Your task to perform on an android device: Open Maps and search for coffee Image 0: 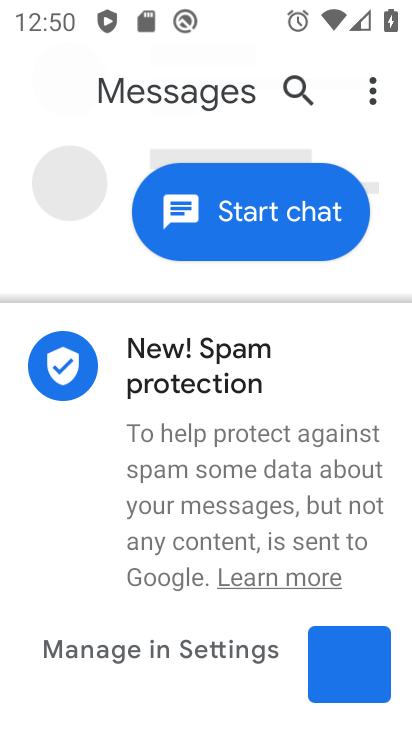
Step 0: press home button
Your task to perform on an android device: Open Maps and search for coffee Image 1: 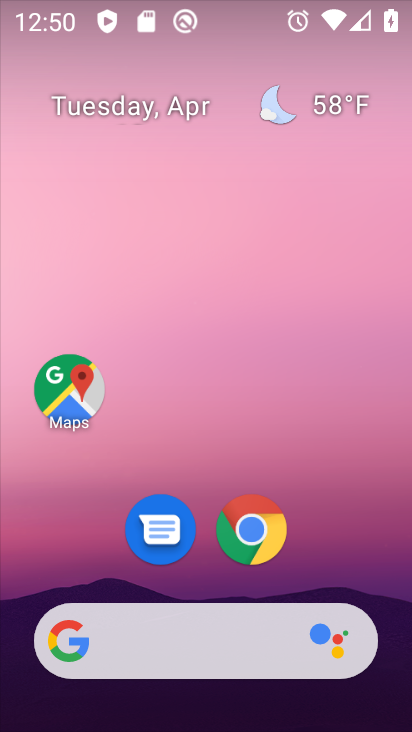
Step 1: drag from (389, 616) to (270, 118)
Your task to perform on an android device: Open Maps and search for coffee Image 2: 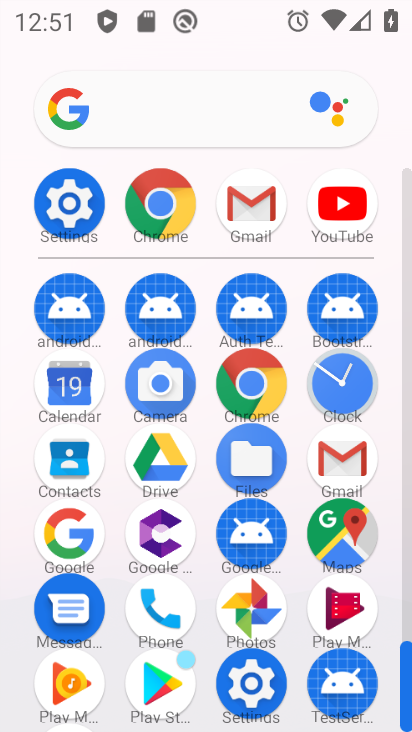
Step 2: click (348, 545)
Your task to perform on an android device: Open Maps and search for coffee Image 3: 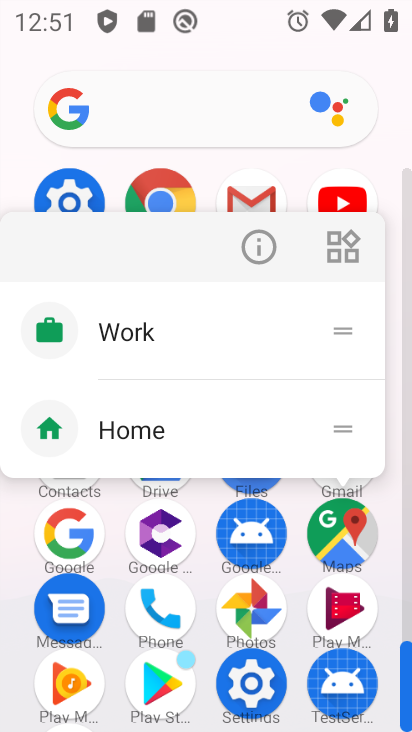
Step 3: click (348, 545)
Your task to perform on an android device: Open Maps and search for coffee Image 4: 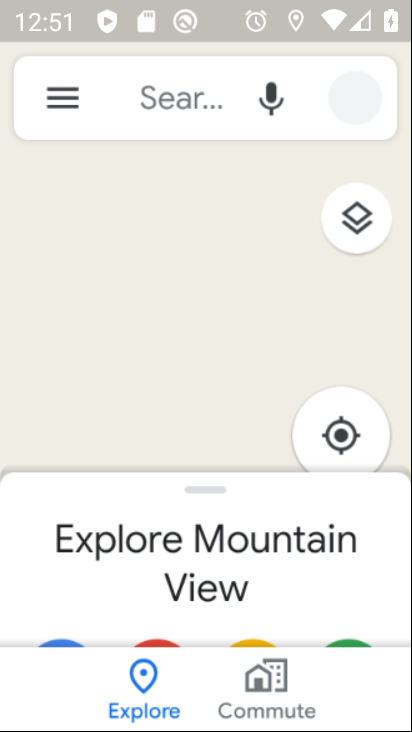
Step 4: click (160, 97)
Your task to perform on an android device: Open Maps and search for coffee Image 5: 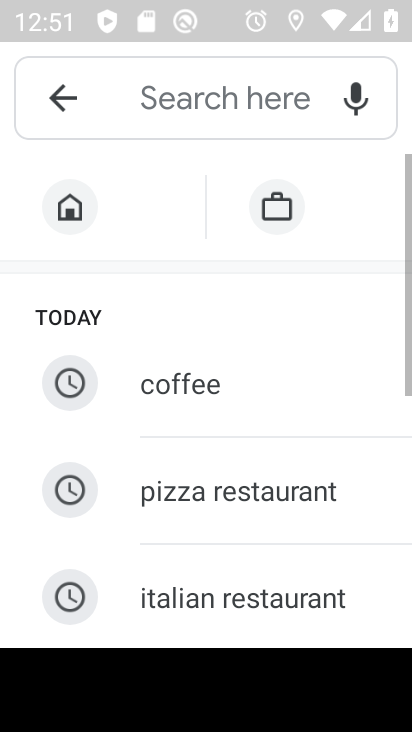
Step 5: click (212, 381)
Your task to perform on an android device: Open Maps and search for coffee Image 6: 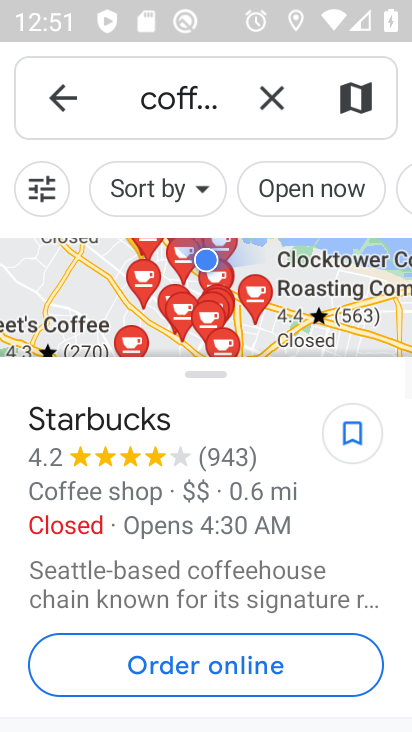
Step 6: task complete